Your task to perform on an android device: open a new tab in the chrome app Image 0: 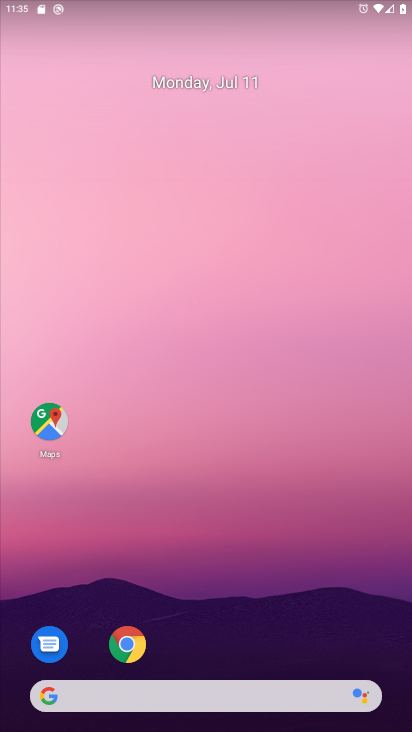
Step 0: click (137, 643)
Your task to perform on an android device: open a new tab in the chrome app Image 1: 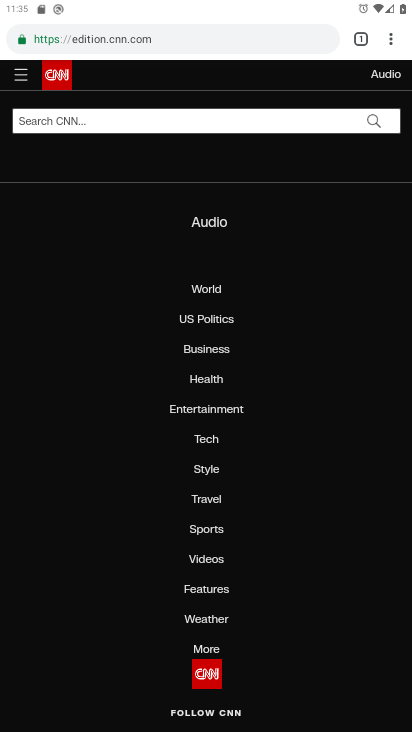
Step 1: click (393, 46)
Your task to perform on an android device: open a new tab in the chrome app Image 2: 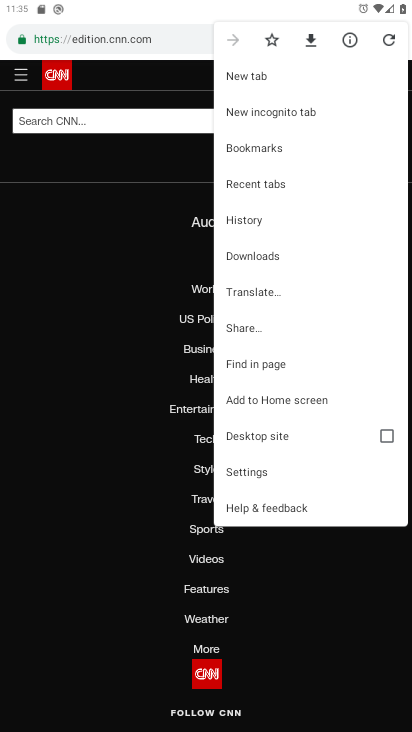
Step 2: click (312, 79)
Your task to perform on an android device: open a new tab in the chrome app Image 3: 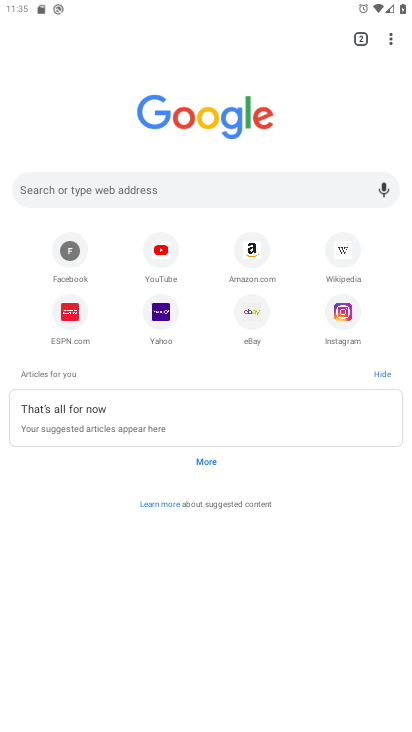
Step 3: task complete